Your task to perform on an android device: Play the last video I watched on Youtube Image 0: 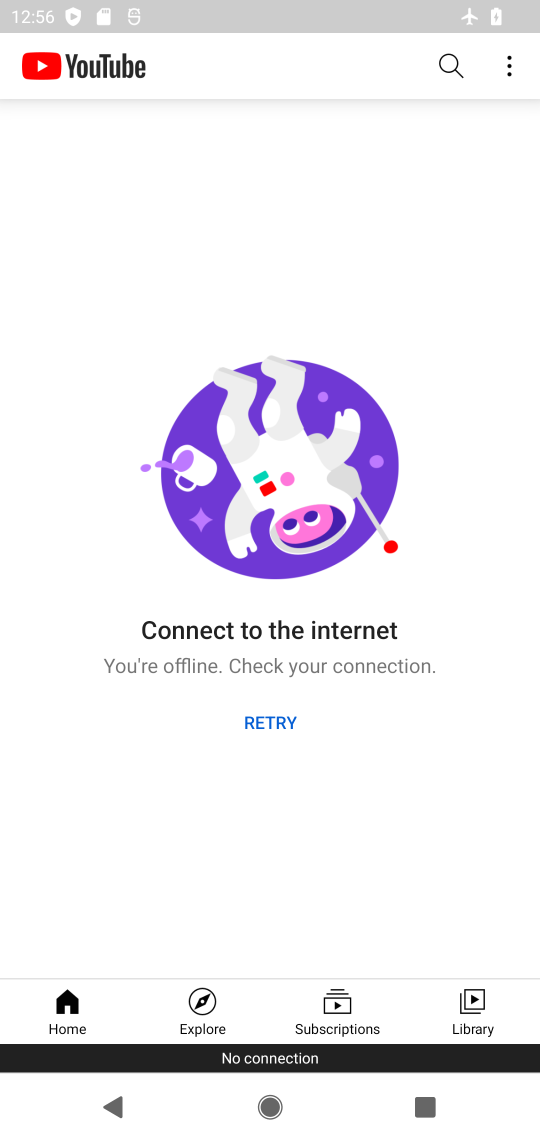
Step 0: press home button
Your task to perform on an android device: Play the last video I watched on Youtube Image 1: 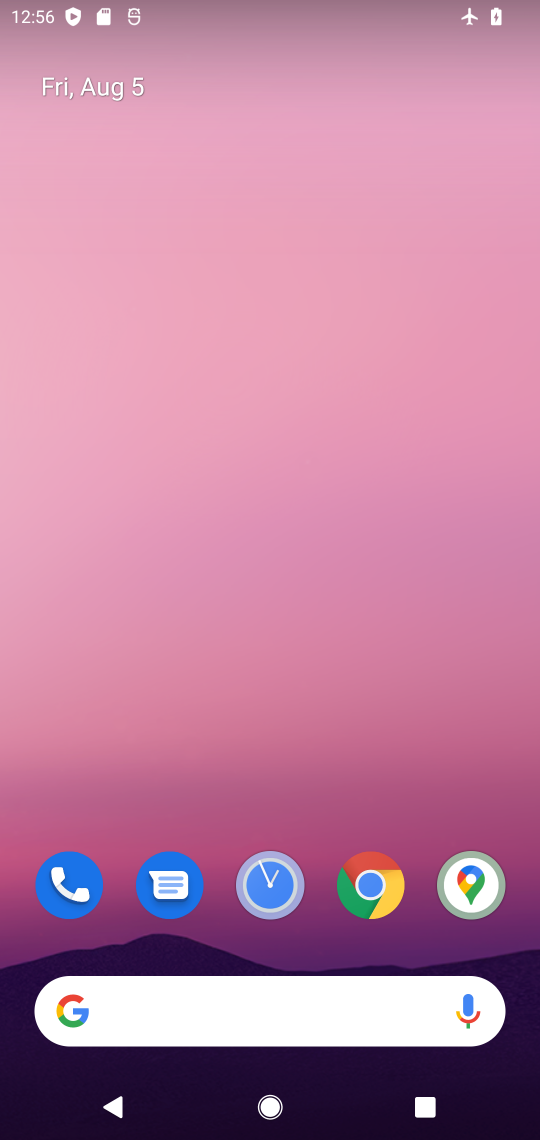
Step 1: drag from (295, 338) to (403, 22)
Your task to perform on an android device: Play the last video I watched on Youtube Image 2: 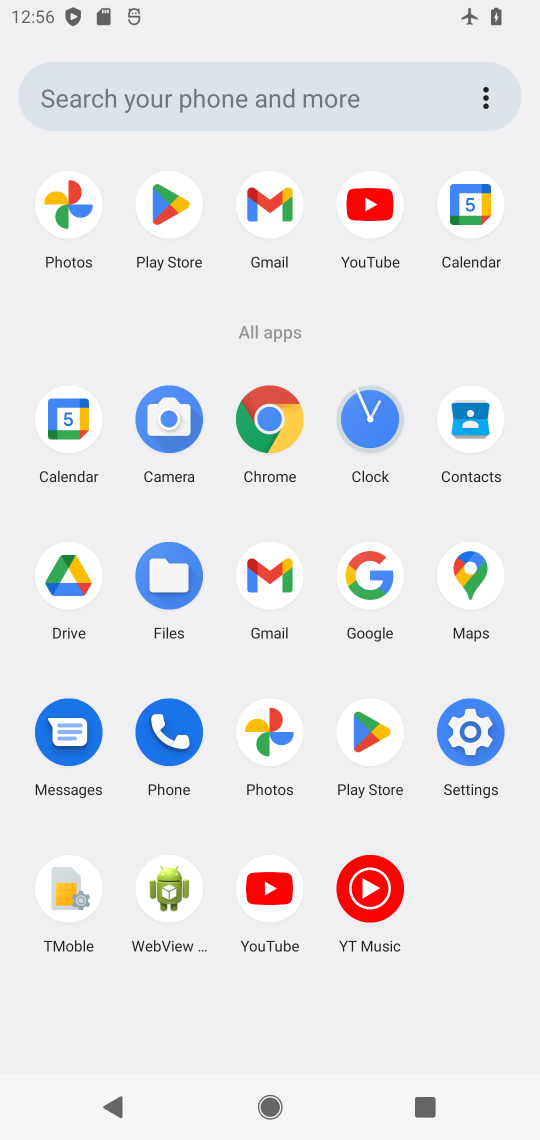
Step 2: click (267, 918)
Your task to perform on an android device: Play the last video I watched on Youtube Image 3: 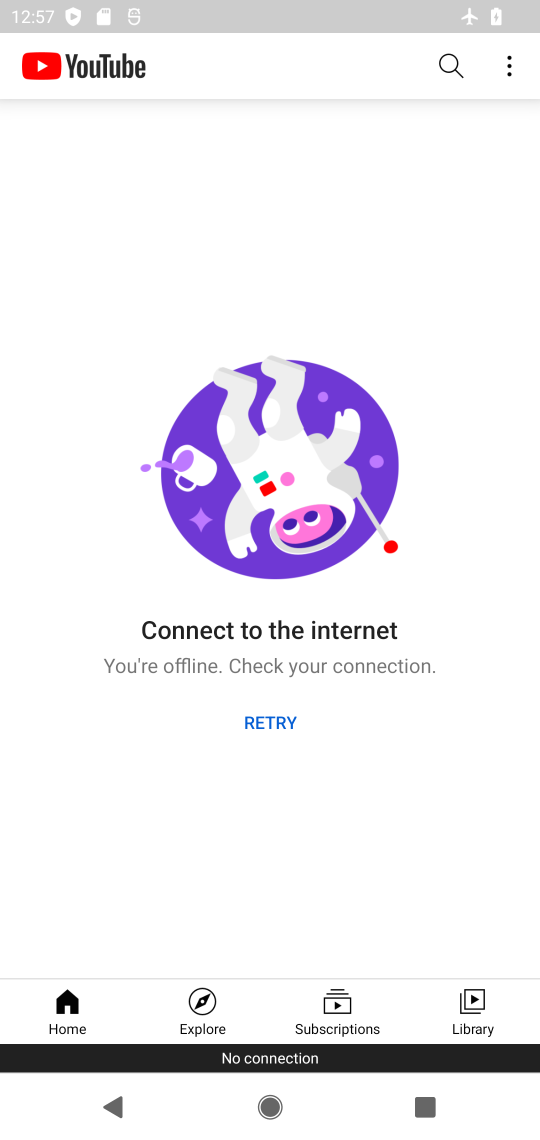
Step 3: task complete